Your task to perform on an android device: Go to location settings Image 0: 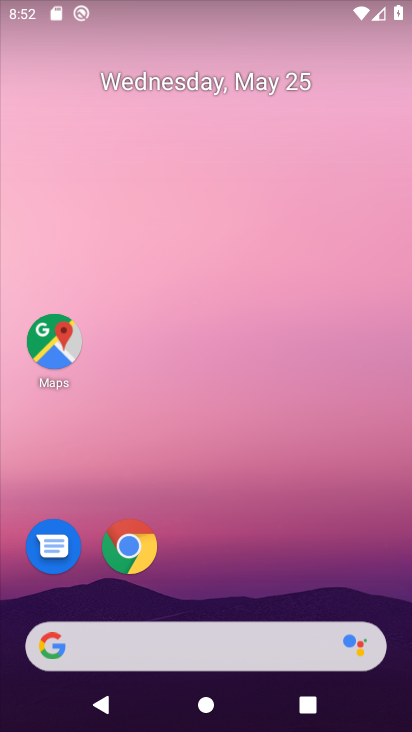
Step 0: drag from (273, 589) to (284, 210)
Your task to perform on an android device: Go to location settings Image 1: 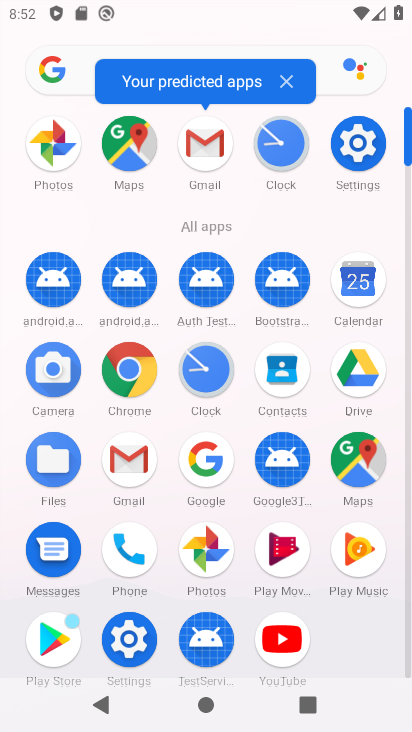
Step 1: click (368, 148)
Your task to perform on an android device: Go to location settings Image 2: 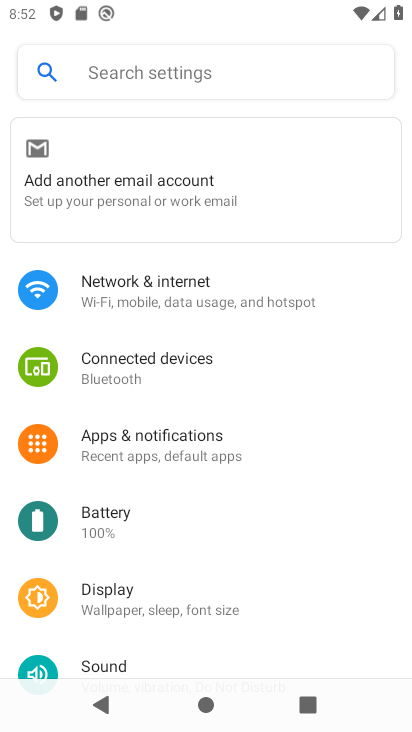
Step 2: drag from (175, 600) to (203, 253)
Your task to perform on an android device: Go to location settings Image 3: 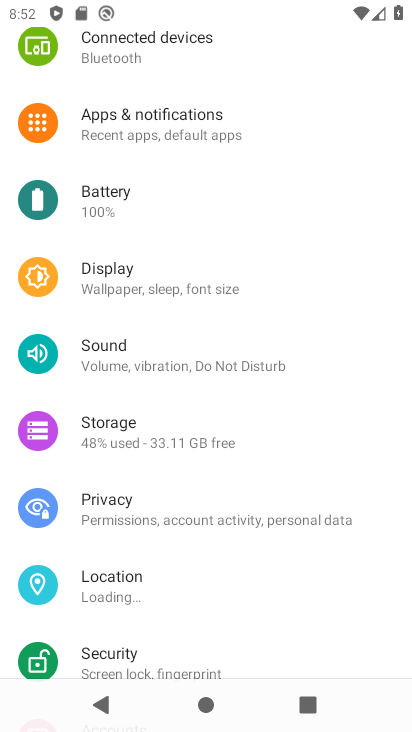
Step 3: click (140, 581)
Your task to perform on an android device: Go to location settings Image 4: 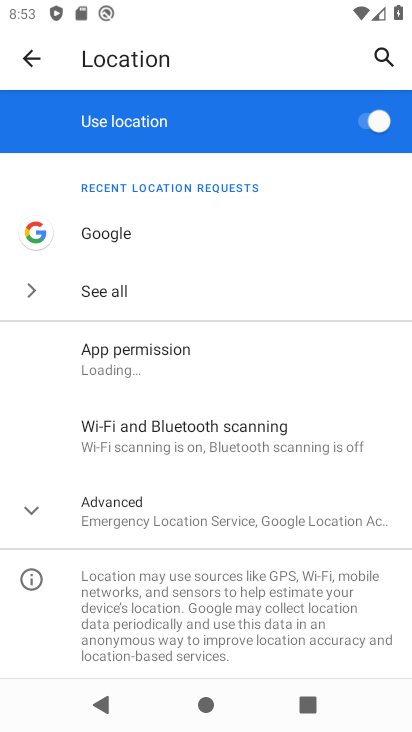
Step 4: task complete